Your task to perform on an android device: turn on translation in the chrome app Image 0: 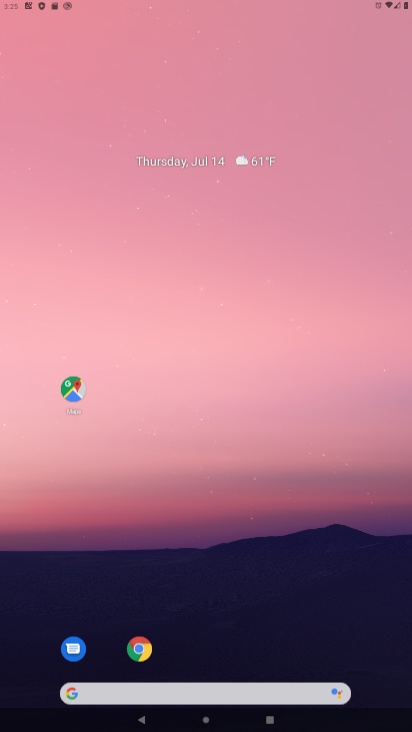
Step 0: press home button
Your task to perform on an android device: turn on translation in the chrome app Image 1: 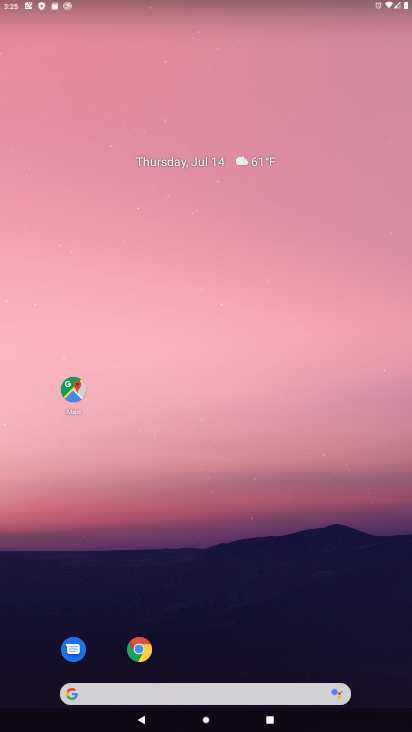
Step 1: drag from (208, 662) to (173, 351)
Your task to perform on an android device: turn on translation in the chrome app Image 2: 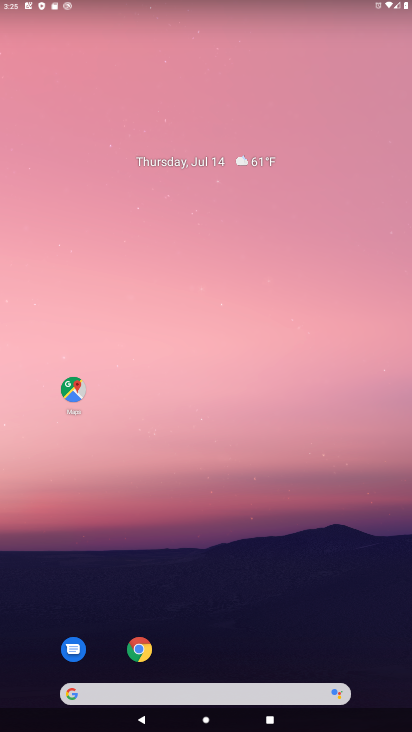
Step 2: drag from (233, 655) to (214, 152)
Your task to perform on an android device: turn on translation in the chrome app Image 3: 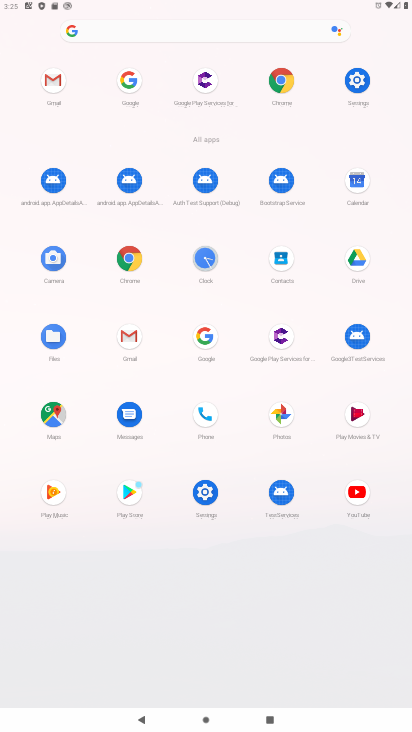
Step 3: click (297, 80)
Your task to perform on an android device: turn on translation in the chrome app Image 4: 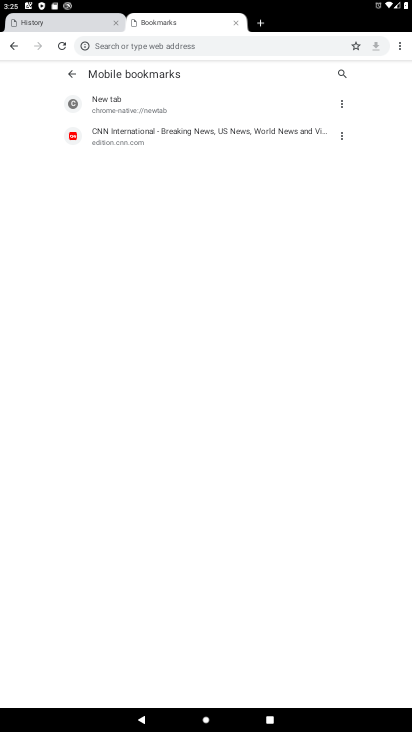
Step 4: click (396, 44)
Your task to perform on an android device: turn on translation in the chrome app Image 5: 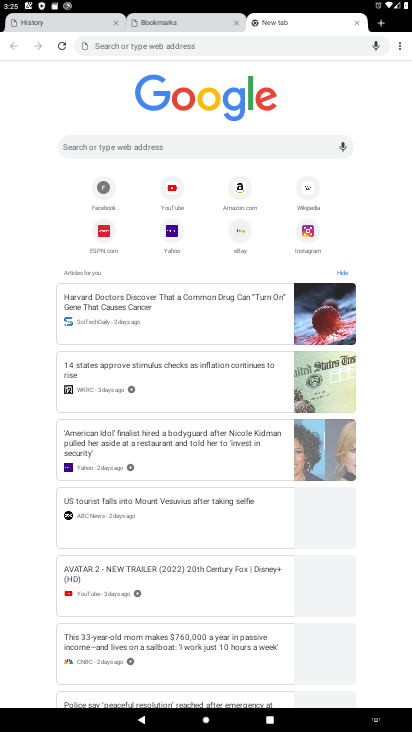
Step 5: drag from (400, 48) to (313, 210)
Your task to perform on an android device: turn on translation in the chrome app Image 6: 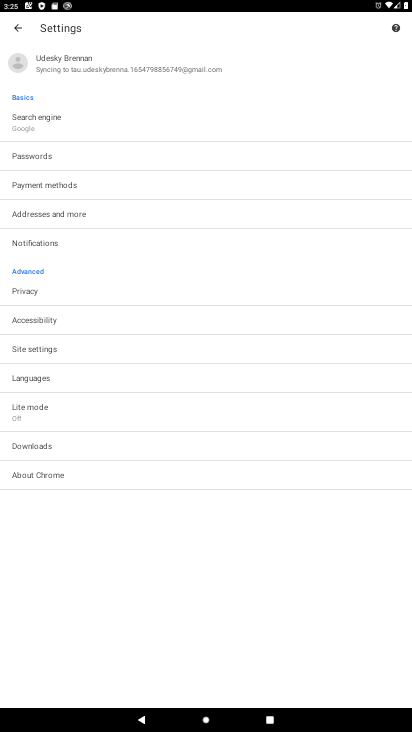
Step 6: click (27, 387)
Your task to perform on an android device: turn on translation in the chrome app Image 7: 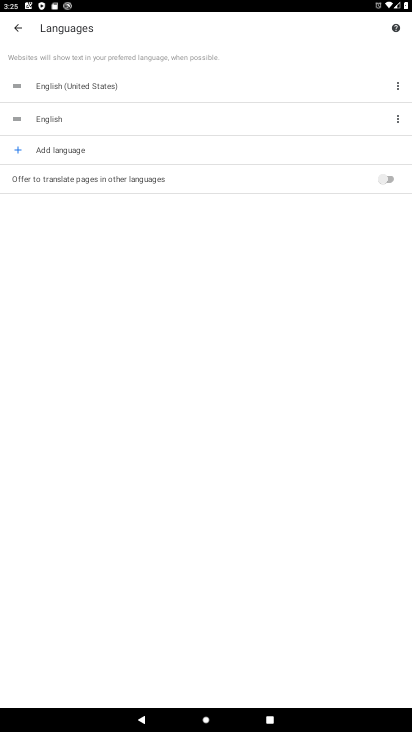
Step 7: click (133, 181)
Your task to perform on an android device: turn on translation in the chrome app Image 8: 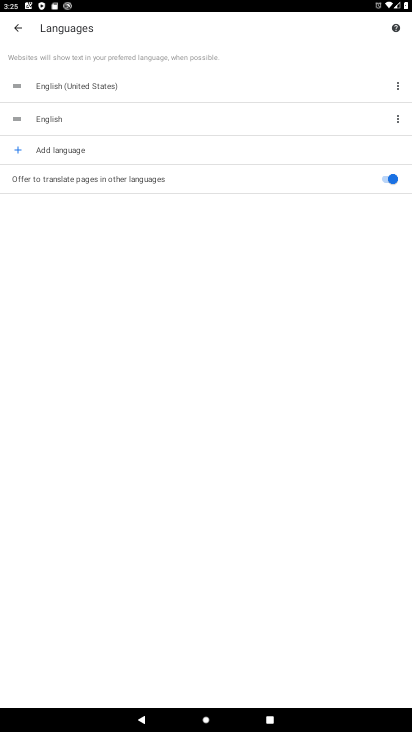
Step 8: task complete